Your task to perform on an android device: Go to eBay Image 0: 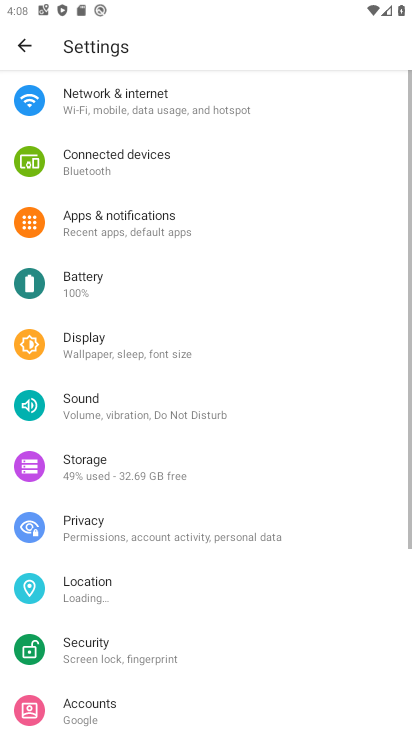
Step 0: press home button
Your task to perform on an android device: Go to eBay Image 1: 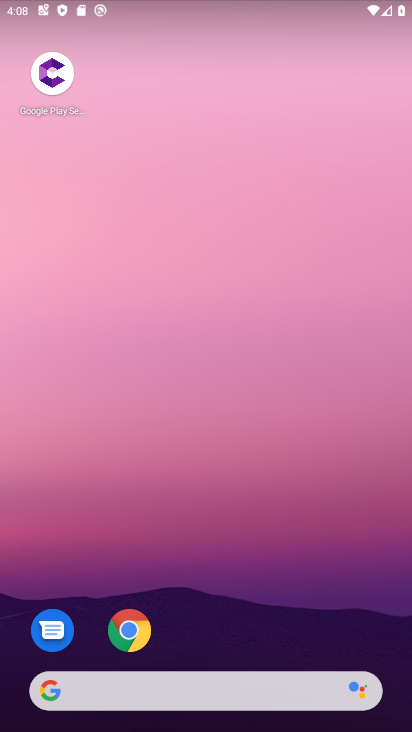
Step 1: click (134, 634)
Your task to perform on an android device: Go to eBay Image 2: 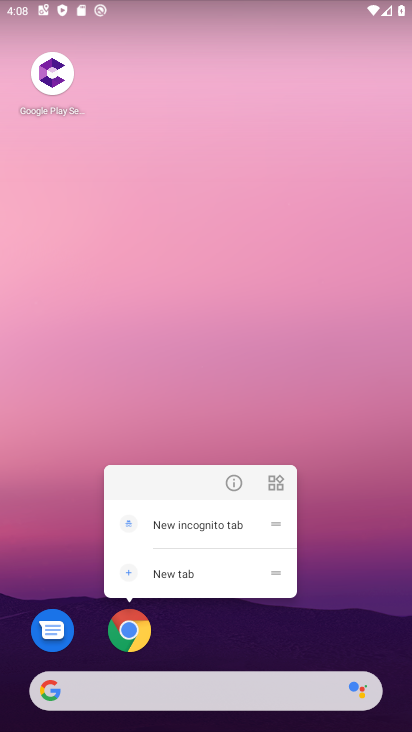
Step 2: click (134, 634)
Your task to perform on an android device: Go to eBay Image 3: 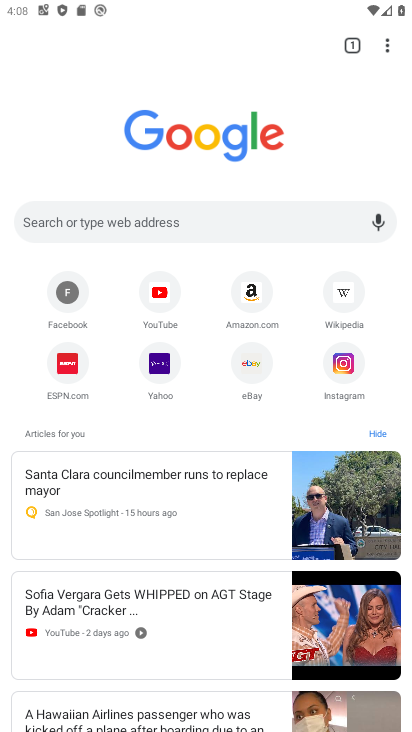
Step 3: click (252, 369)
Your task to perform on an android device: Go to eBay Image 4: 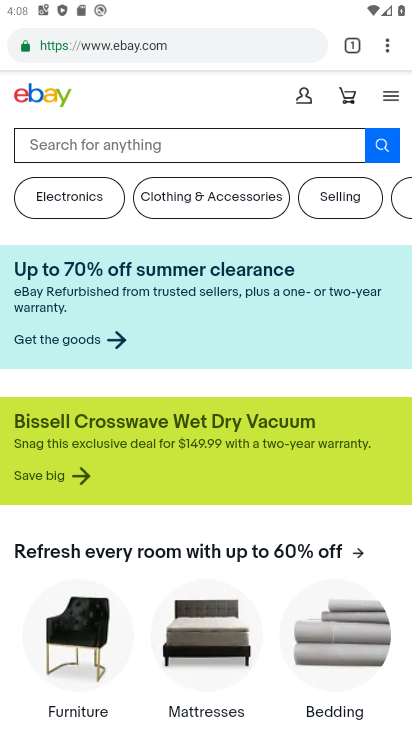
Step 4: task complete